Your task to perform on an android device: star an email in the gmail app Image 0: 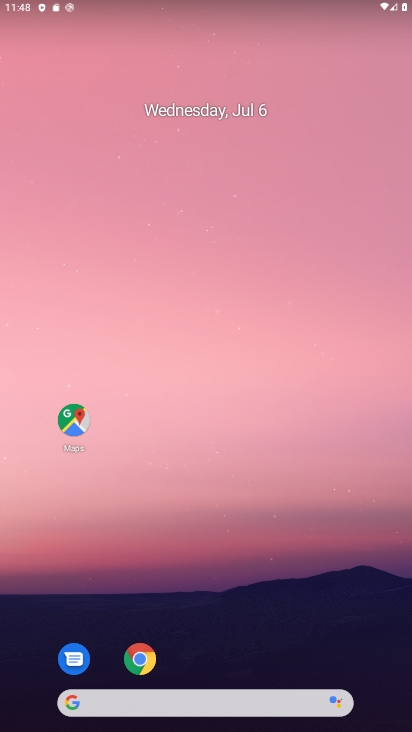
Step 0: drag from (225, 718) to (89, 46)
Your task to perform on an android device: star an email in the gmail app Image 1: 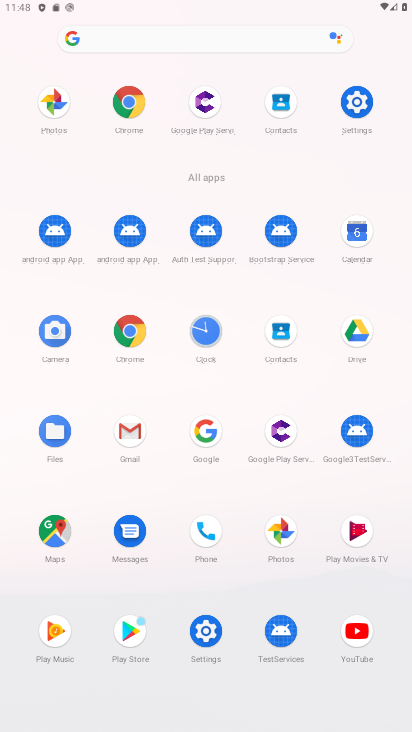
Step 1: click (128, 428)
Your task to perform on an android device: star an email in the gmail app Image 2: 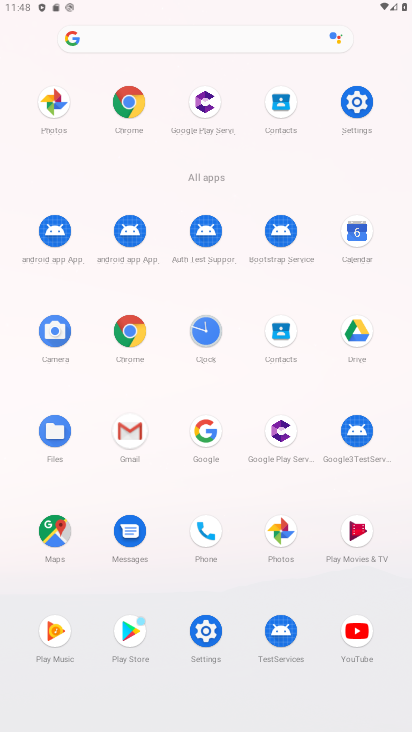
Step 2: click (133, 427)
Your task to perform on an android device: star an email in the gmail app Image 3: 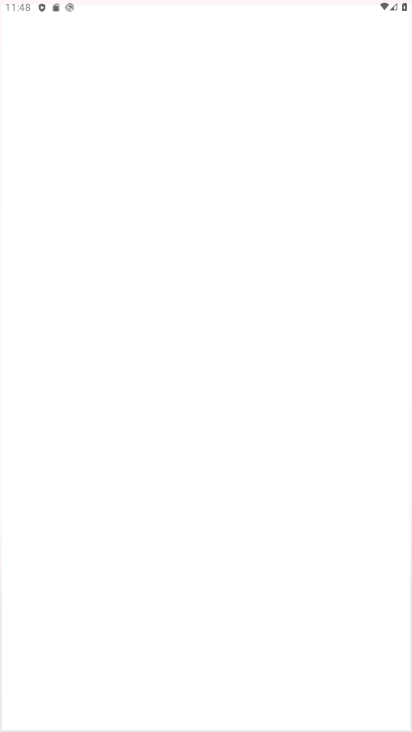
Step 3: click (134, 427)
Your task to perform on an android device: star an email in the gmail app Image 4: 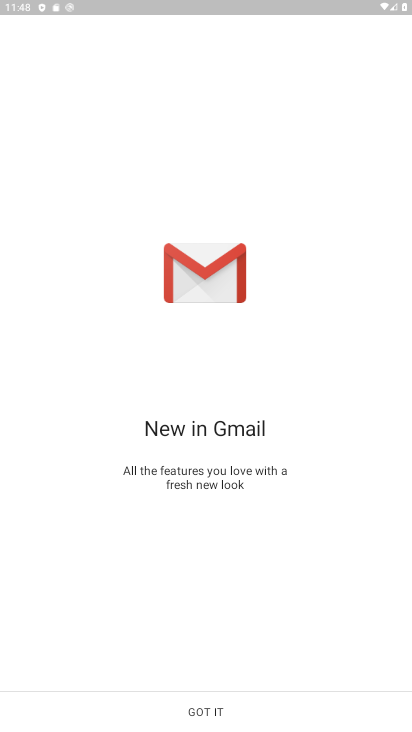
Step 4: click (220, 712)
Your task to perform on an android device: star an email in the gmail app Image 5: 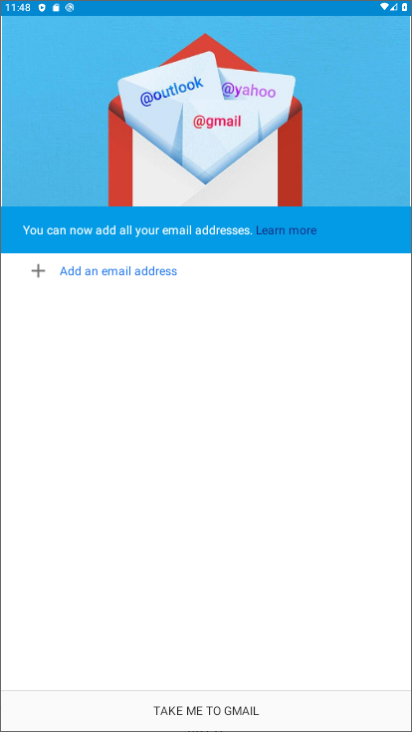
Step 5: click (231, 700)
Your task to perform on an android device: star an email in the gmail app Image 6: 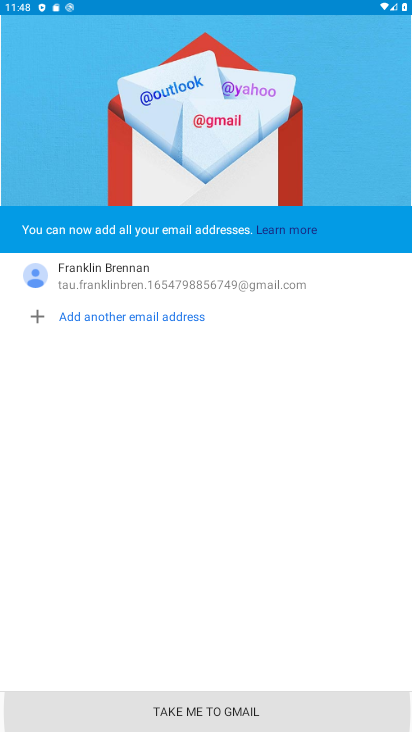
Step 6: click (236, 700)
Your task to perform on an android device: star an email in the gmail app Image 7: 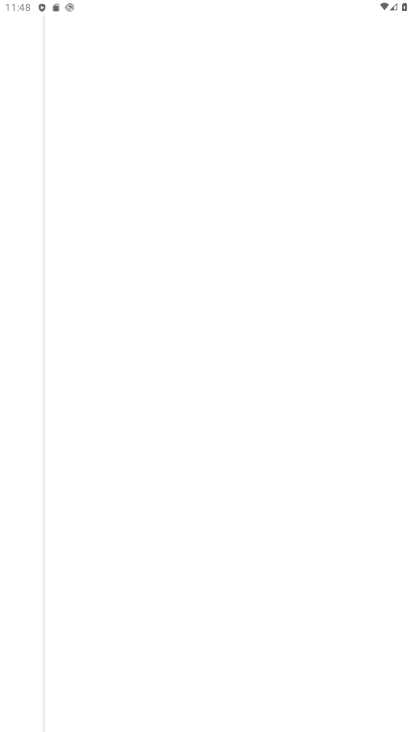
Step 7: click (241, 704)
Your task to perform on an android device: star an email in the gmail app Image 8: 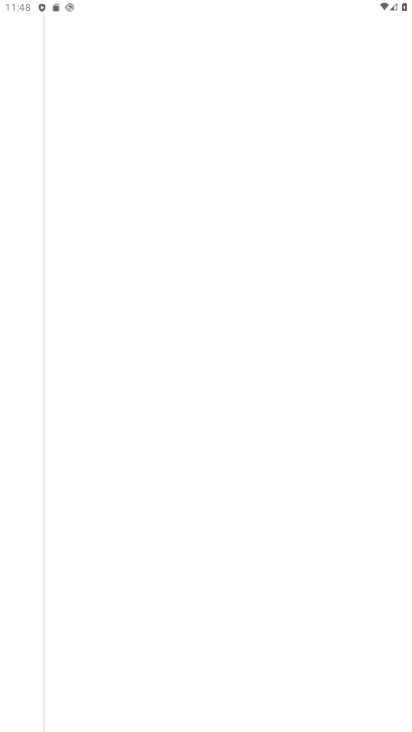
Step 8: click (241, 704)
Your task to perform on an android device: star an email in the gmail app Image 9: 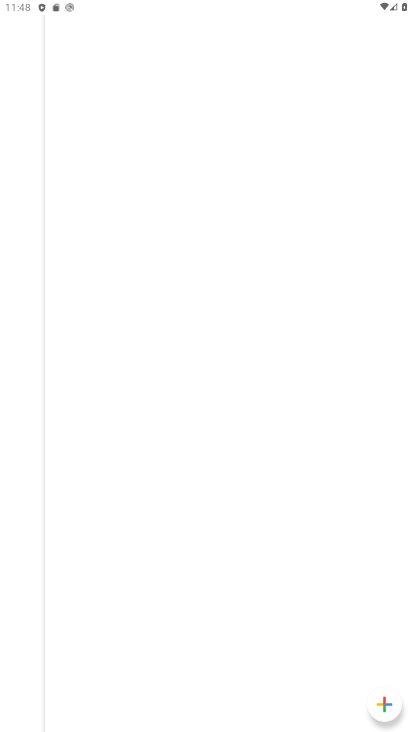
Step 9: click (243, 704)
Your task to perform on an android device: star an email in the gmail app Image 10: 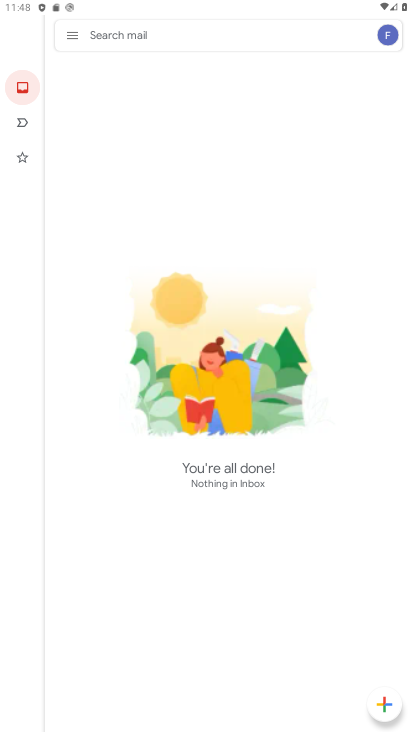
Step 10: click (98, 40)
Your task to perform on an android device: star an email in the gmail app Image 11: 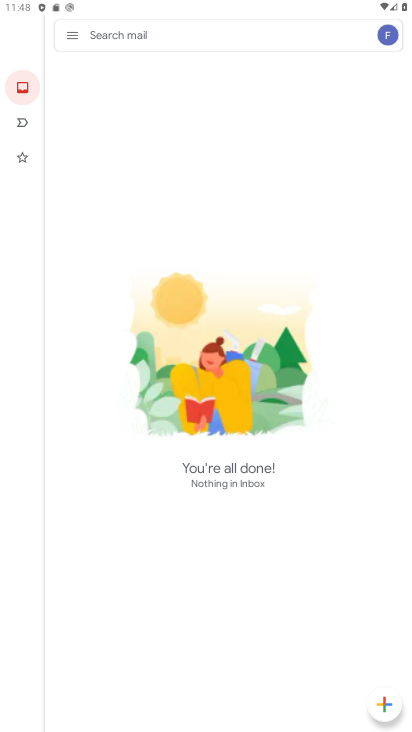
Step 11: click (64, 43)
Your task to perform on an android device: star an email in the gmail app Image 12: 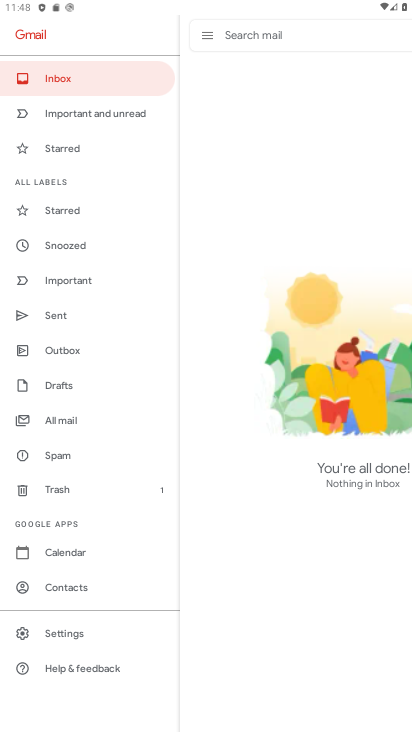
Step 12: click (62, 212)
Your task to perform on an android device: star an email in the gmail app Image 13: 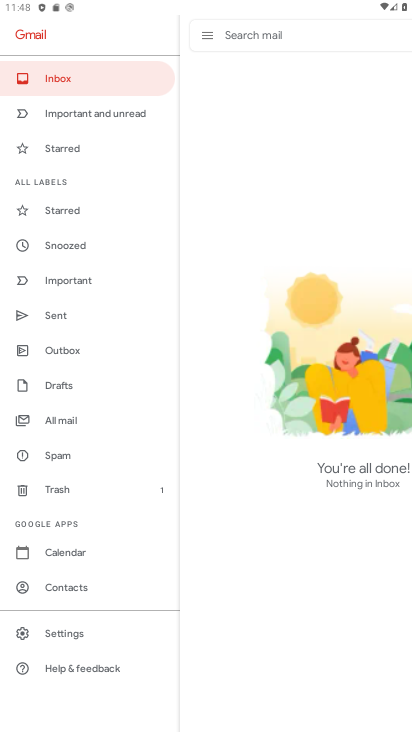
Step 13: click (62, 212)
Your task to perform on an android device: star an email in the gmail app Image 14: 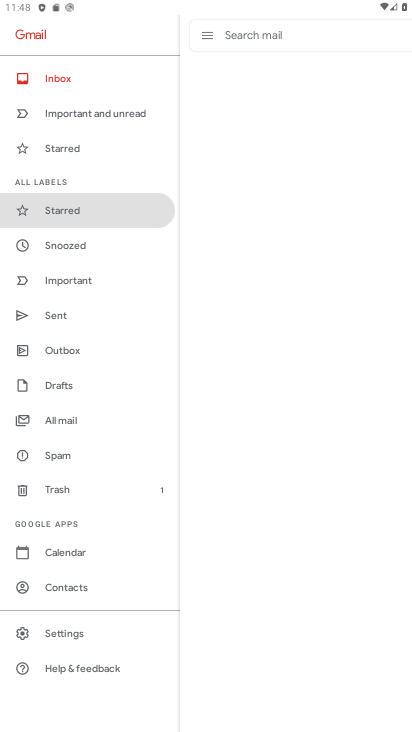
Step 14: click (66, 212)
Your task to perform on an android device: star an email in the gmail app Image 15: 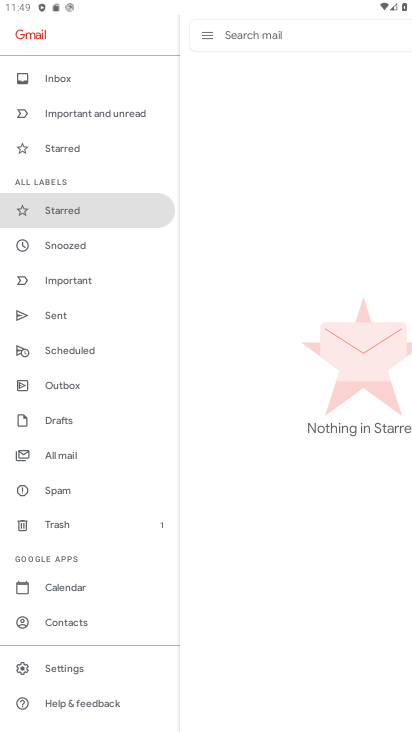
Step 15: click (96, 212)
Your task to perform on an android device: star an email in the gmail app Image 16: 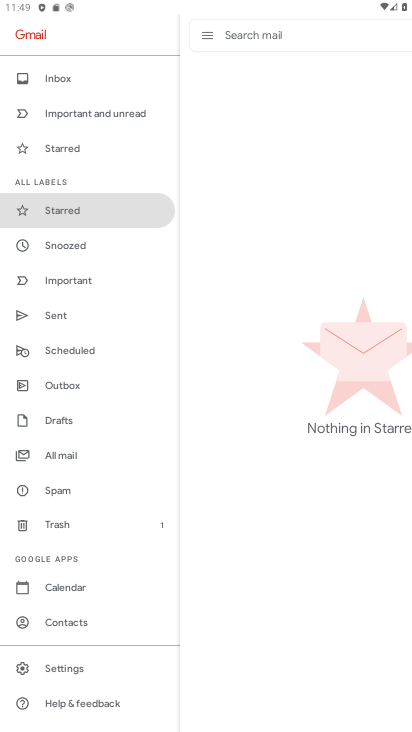
Step 16: click (99, 205)
Your task to perform on an android device: star an email in the gmail app Image 17: 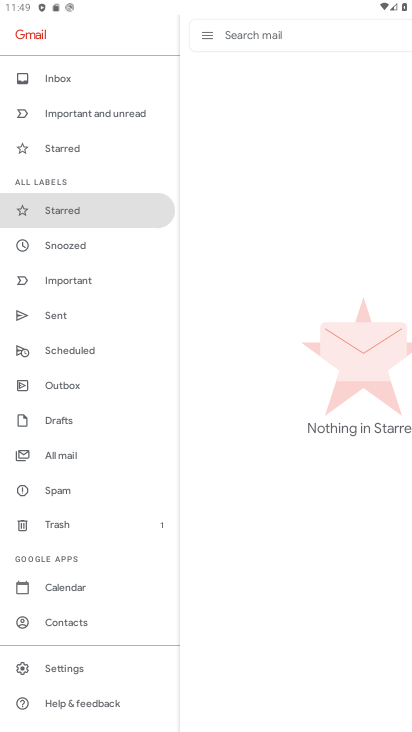
Step 17: click (101, 205)
Your task to perform on an android device: star an email in the gmail app Image 18: 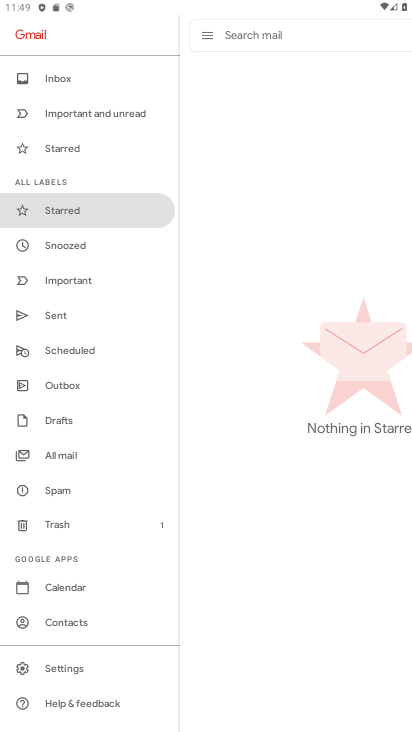
Step 18: click (66, 454)
Your task to perform on an android device: star an email in the gmail app Image 19: 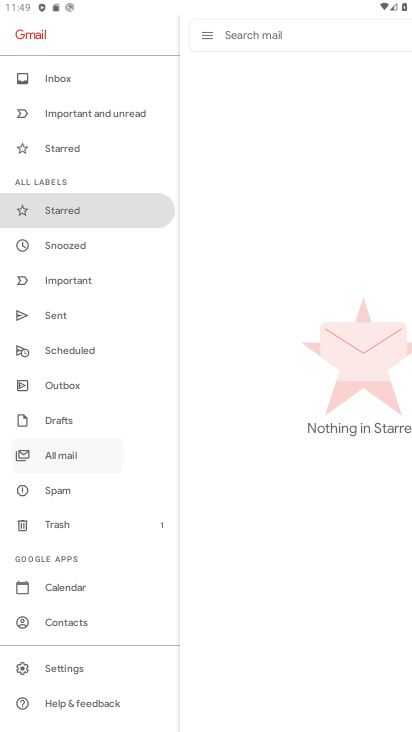
Step 19: click (66, 454)
Your task to perform on an android device: star an email in the gmail app Image 20: 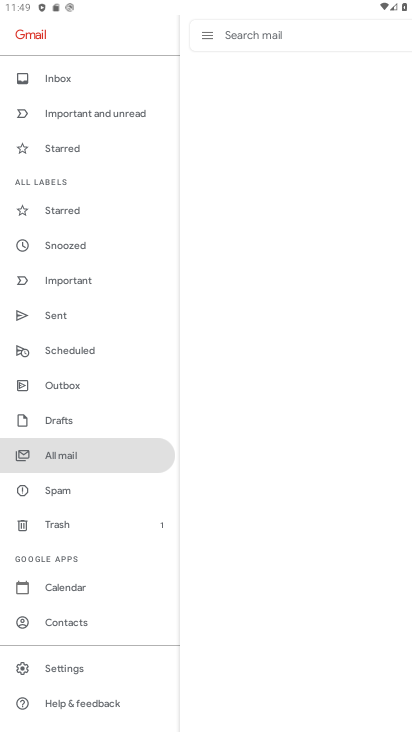
Step 20: click (77, 454)
Your task to perform on an android device: star an email in the gmail app Image 21: 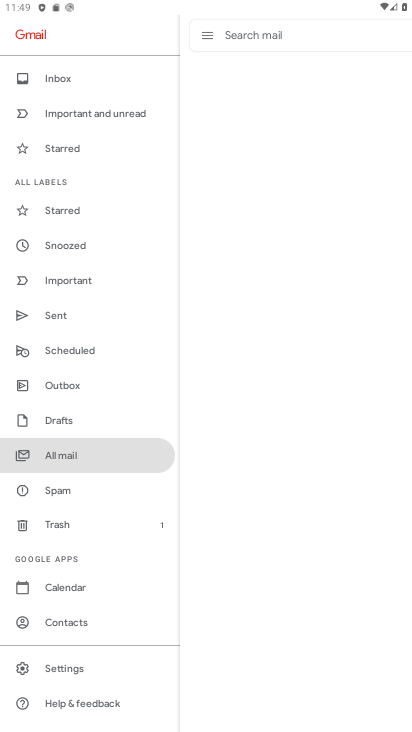
Step 21: click (78, 454)
Your task to perform on an android device: star an email in the gmail app Image 22: 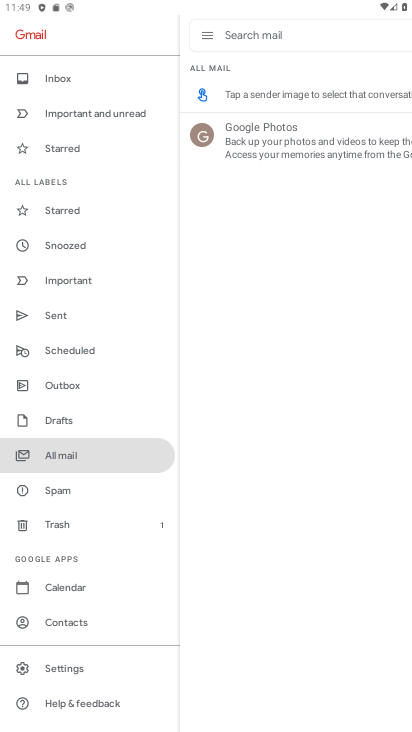
Step 22: click (296, 137)
Your task to perform on an android device: star an email in the gmail app Image 23: 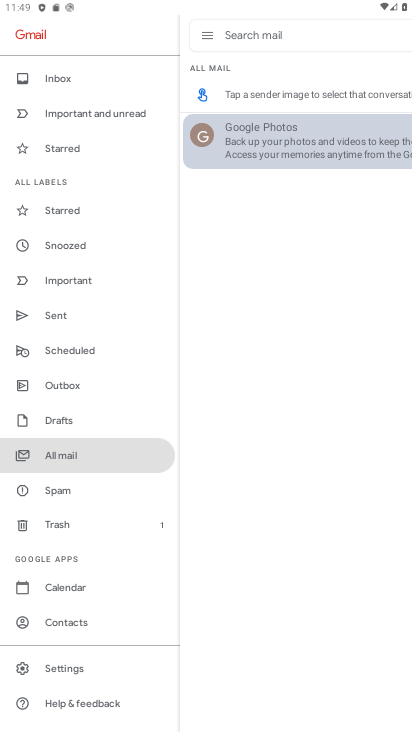
Step 23: click (296, 137)
Your task to perform on an android device: star an email in the gmail app Image 24: 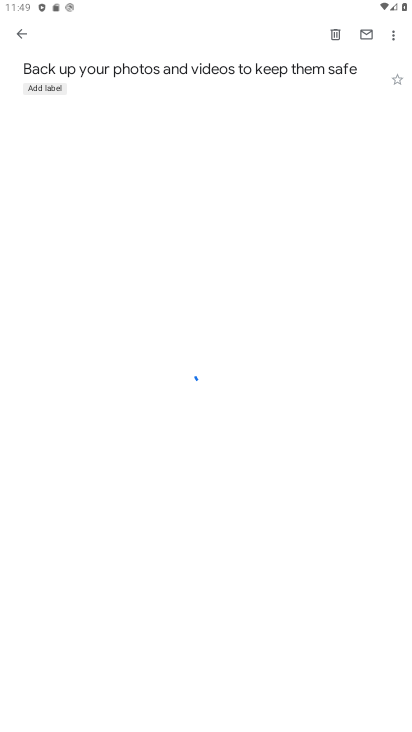
Step 24: click (396, 84)
Your task to perform on an android device: star an email in the gmail app Image 25: 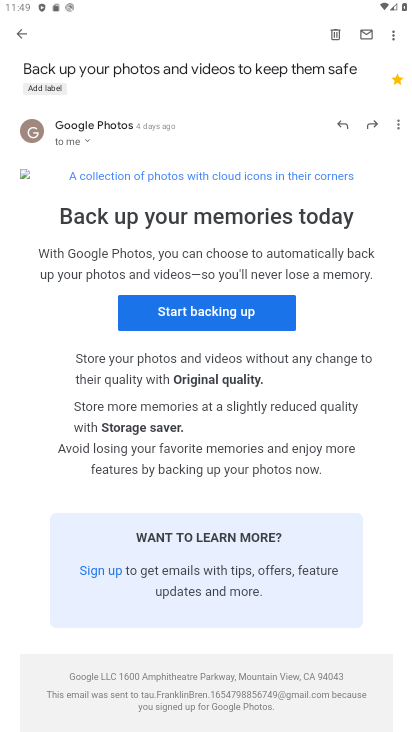
Step 25: click (395, 82)
Your task to perform on an android device: star an email in the gmail app Image 26: 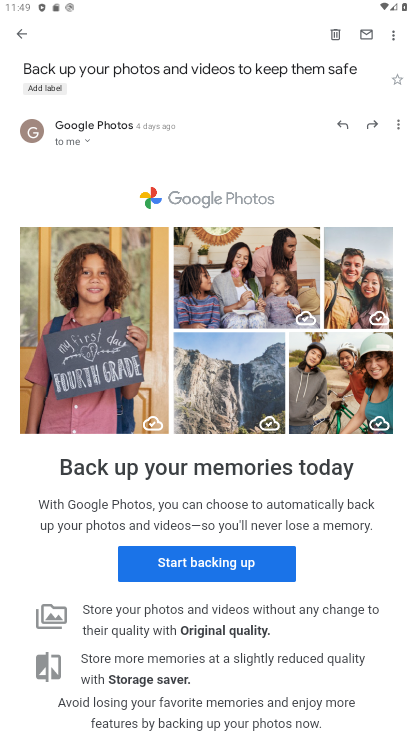
Step 26: click (393, 79)
Your task to perform on an android device: star an email in the gmail app Image 27: 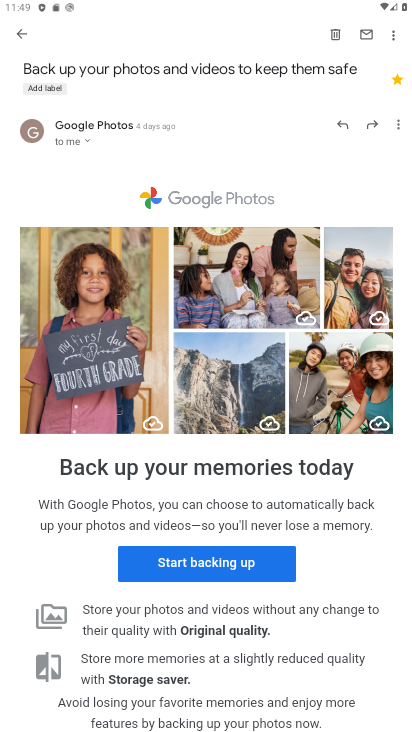
Step 27: task complete